Your task to perform on an android device: open a new tab in the chrome app Image 0: 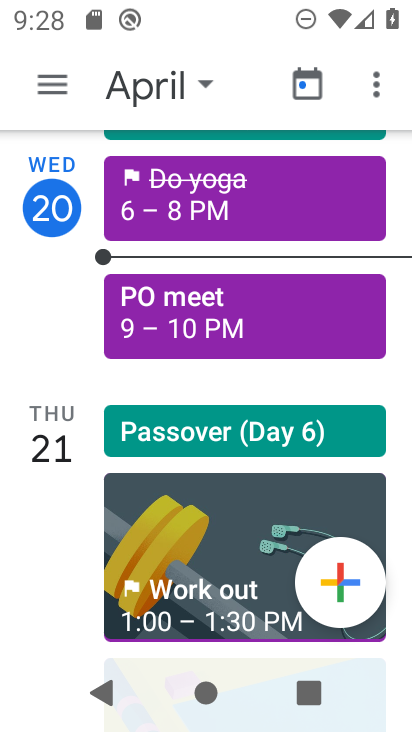
Step 0: press home button
Your task to perform on an android device: open a new tab in the chrome app Image 1: 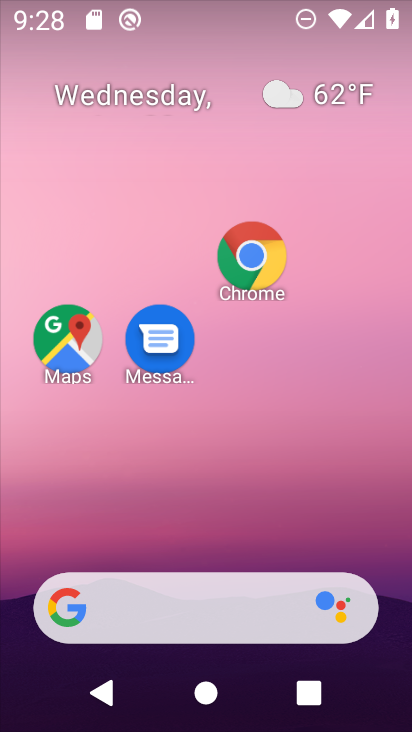
Step 1: click (250, 258)
Your task to perform on an android device: open a new tab in the chrome app Image 2: 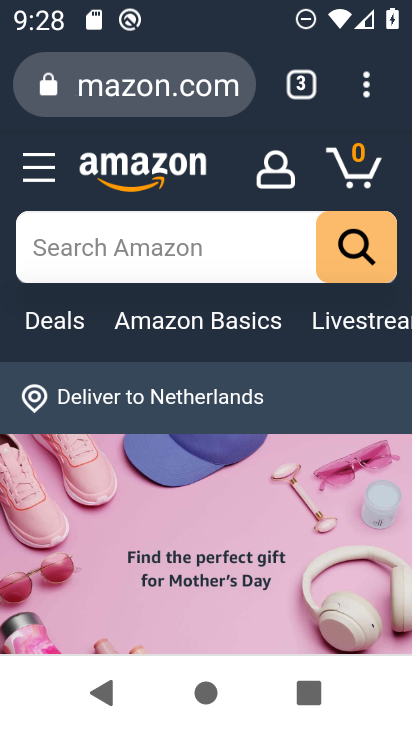
Step 2: click (302, 86)
Your task to perform on an android device: open a new tab in the chrome app Image 3: 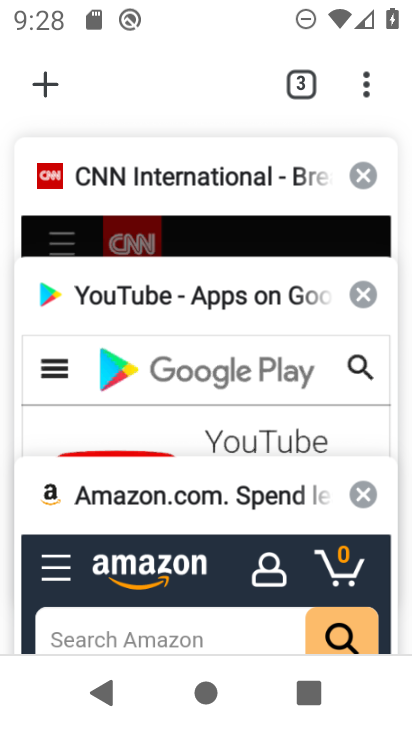
Step 3: click (40, 80)
Your task to perform on an android device: open a new tab in the chrome app Image 4: 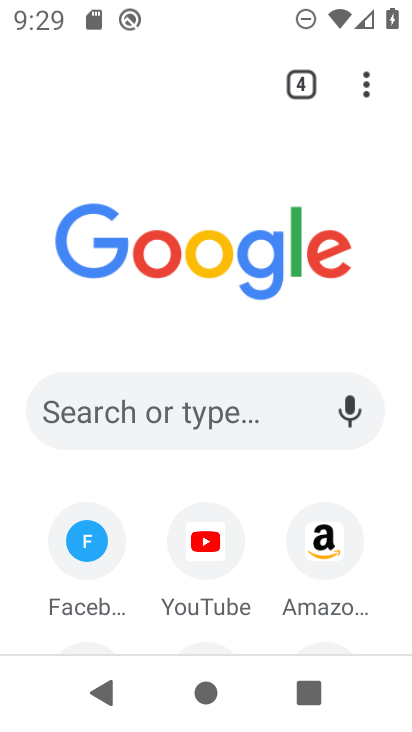
Step 4: task complete